Your task to perform on an android device: open a bookmark in the chrome app Image 0: 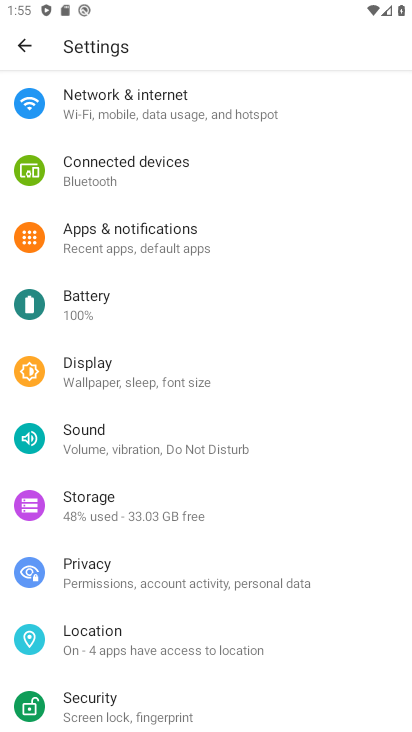
Step 0: press home button
Your task to perform on an android device: open a bookmark in the chrome app Image 1: 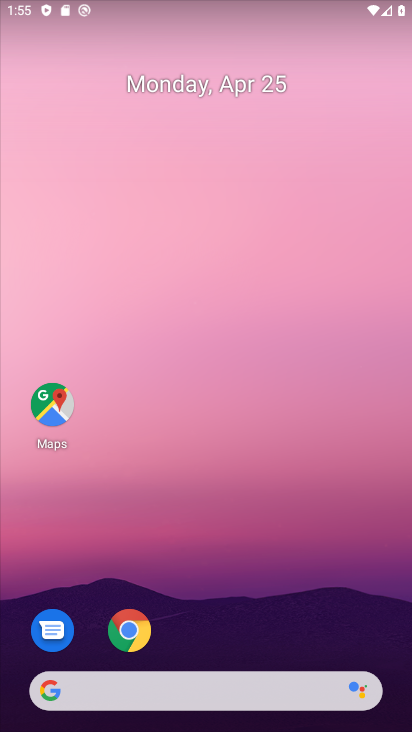
Step 1: drag from (246, 631) to (231, 175)
Your task to perform on an android device: open a bookmark in the chrome app Image 2: 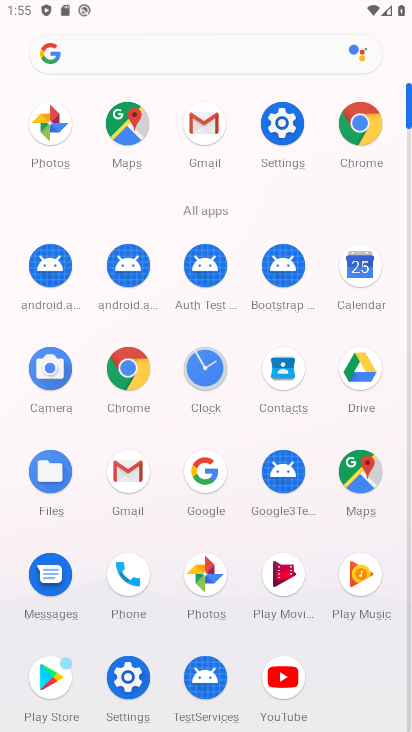
Step 2: click (123, 367)
Your task to perform on an android device: open a bookmark in the chrome app Image 3: 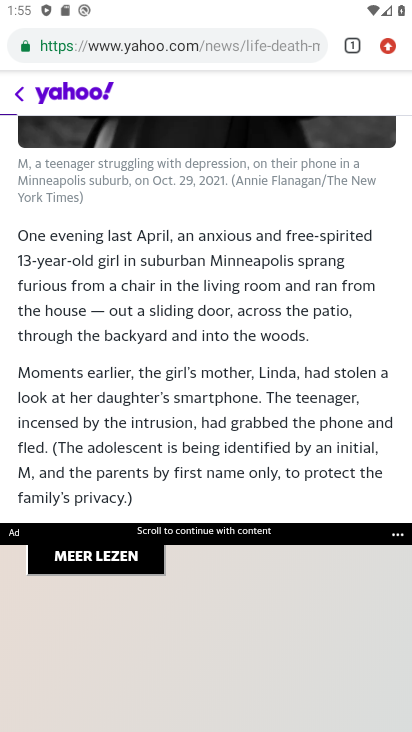
Step 3: click (389, 40)
Your task to perform on an android device: open a bookmark in the chrome app Image 4: 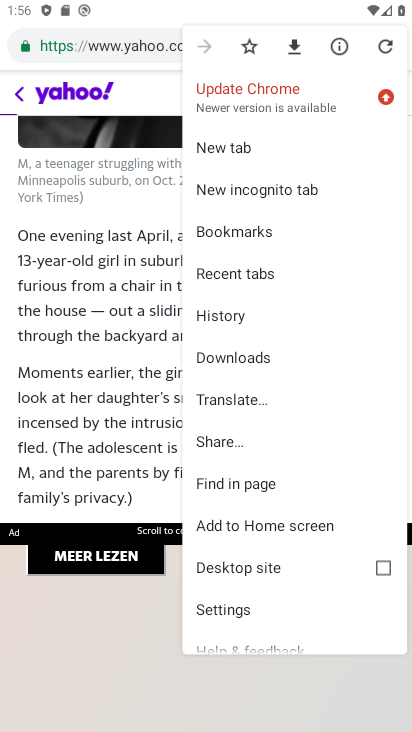
Step 4: click (267, 240)
Your task to perform on an android device: open a bookmark in the chrome app Image 5: 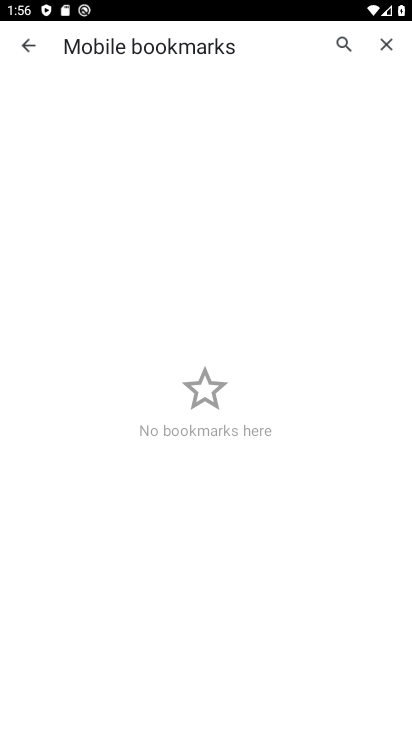
Step 5: task complete